Your task to perform on an android device: turn notification dots on Image 0: 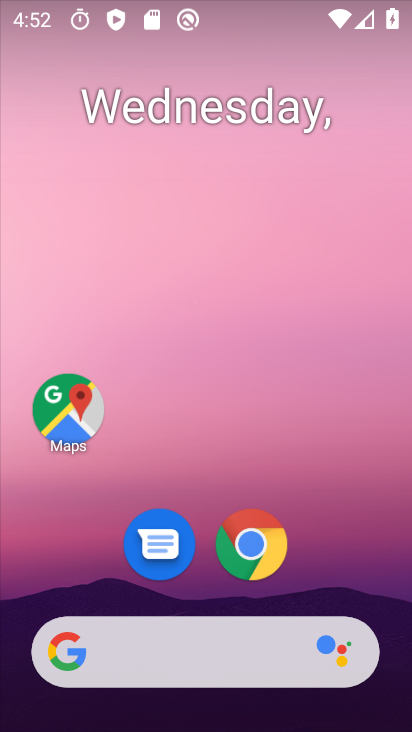
Step 0: drag from (249, 607) to (175, 7)
Your task to perform on an android device: turn notification dots on Image 1: 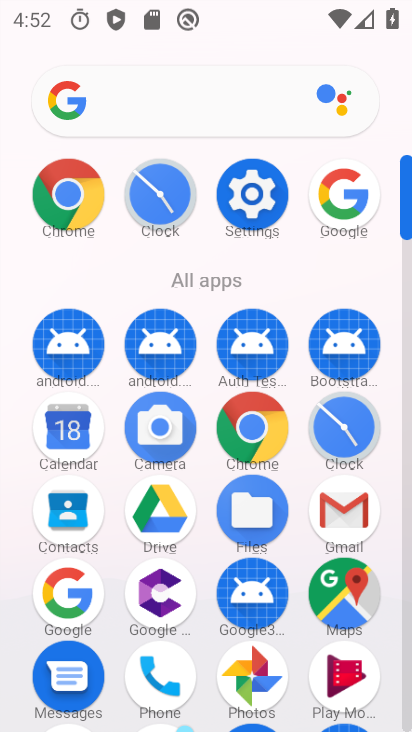
Step 1: click (248, 185)
Your task to perform on an android device: turn notification dots on Image 2: 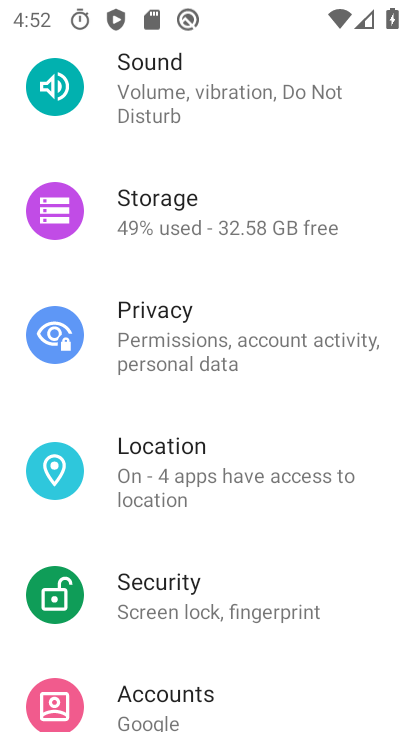
Step 2: drag from (242, 238) to (237, 614)
Your task to perform on an android device: turn notification dots on Image 3: 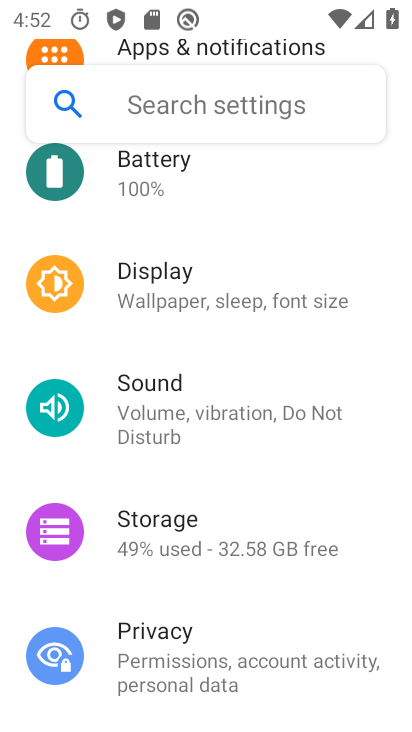
Step 3: drag from (241, 183) to (241, 425)
Your task to perform on an android device: turn notification dots on Image 4: 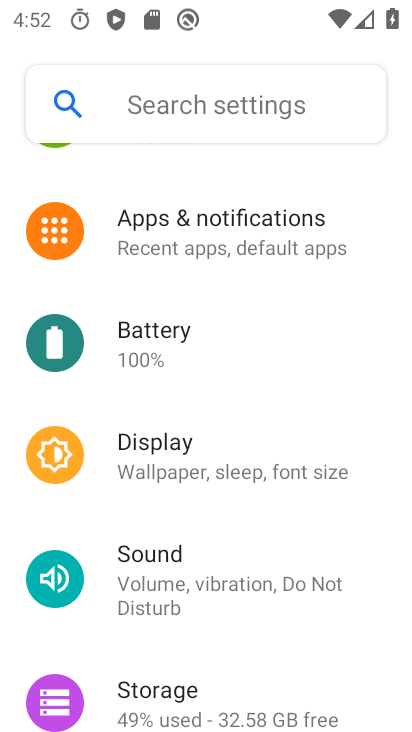
Step 4: click (216, 244)
Your task to perform on an android device: turn notification dots on Image 5: 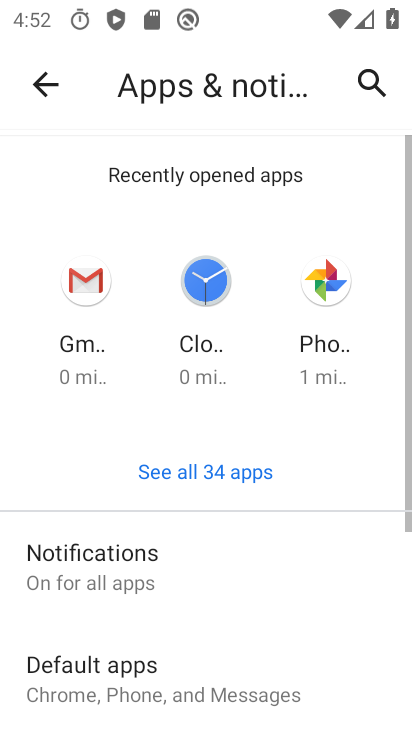
Step 5: drag from (245, 645) to (207, 301)
Your task to perform on an android device: turn notification dots on Image 6: 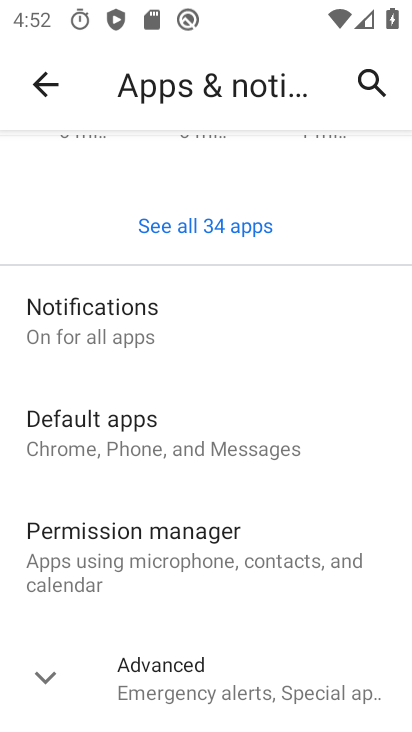
Step 6: click (144, 336)
Your task to perform on an android device: turn notification dots on Image 7: 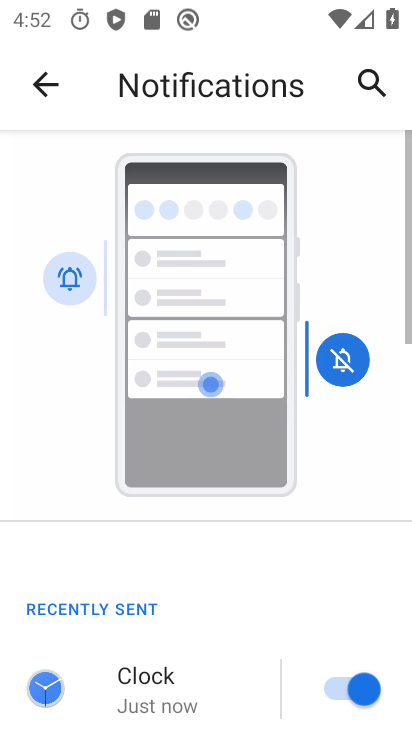
Step 7: drag from (235, 640) to (198, 27)
Your task to perform on an android device: turn notification dots on Image 8: 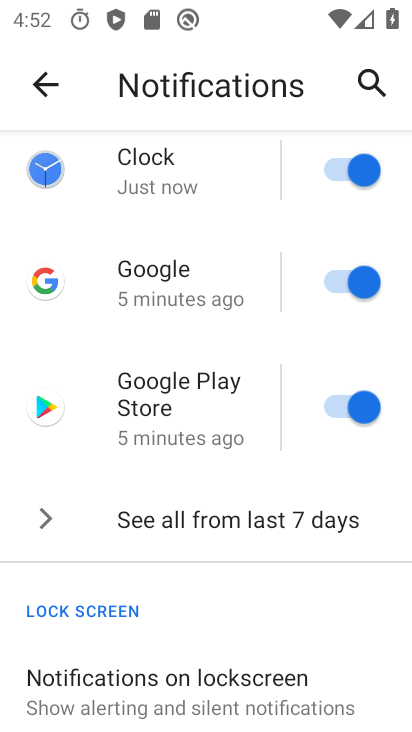
Step 8: drag from (216, 667) to (172, 70)
Your task to perform on an android device: turn notification dots on Image 9: 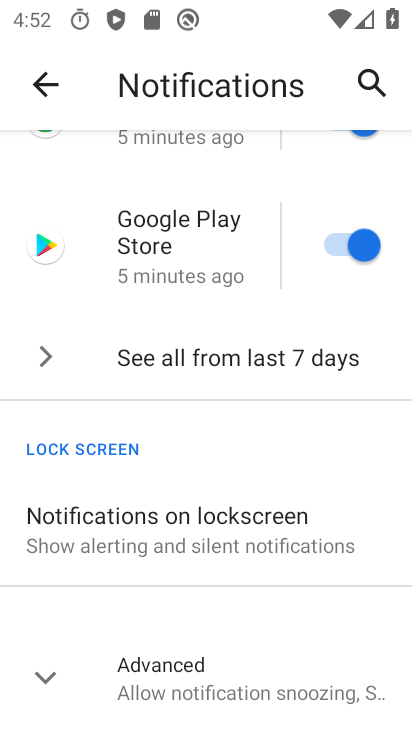
Step 9: click (231, 675)
Your task to perform on an android device: turn notification dots on Image 10: 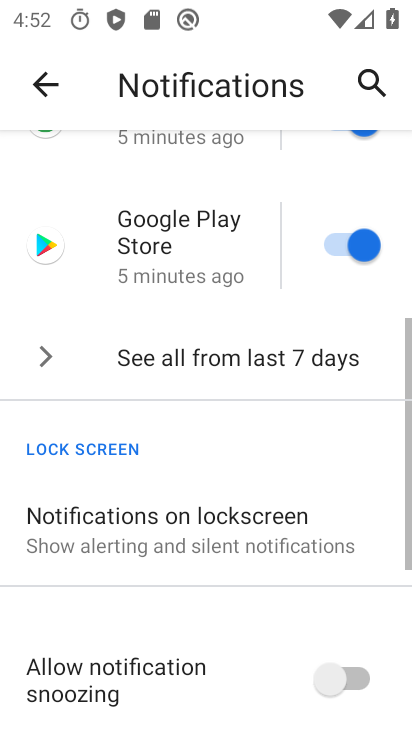
Step 10: task complete